Your task to perform on an android device: star an email in the gmail app Image 0: 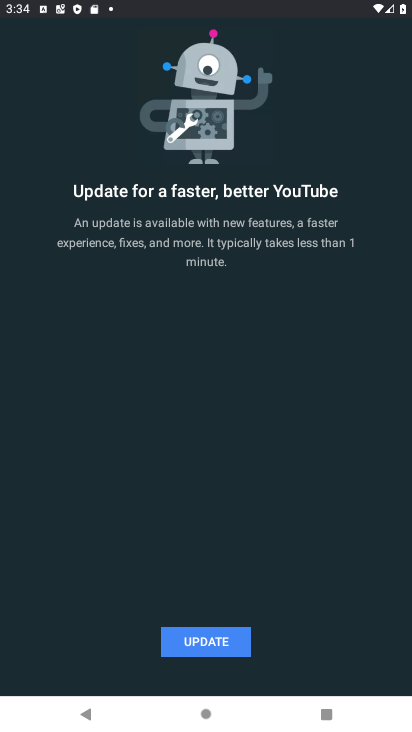
Step 0: press home button
Your task to perform on an android device: star an email in the gmail app Image 1: 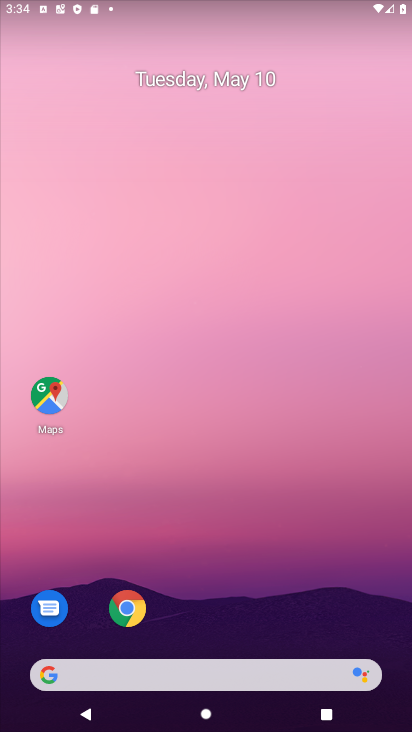
Step 1: drag from (382, 627) to (246, 150)
Your task to perform on an android device: star an email in the gmail app Image 2: 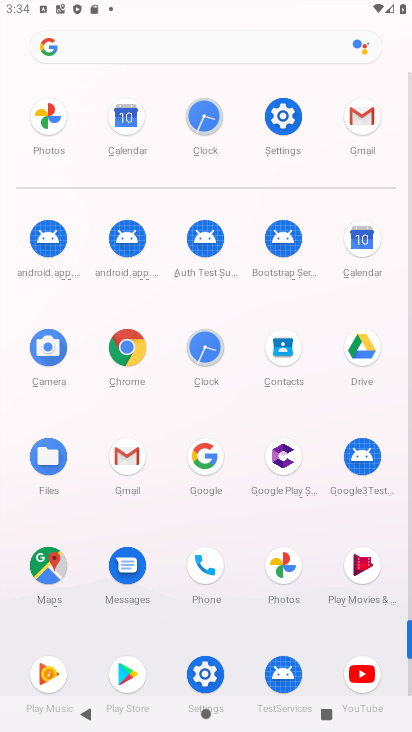
Step 2: click (410, 687)
Your task to perform on an android device: star an email in the gmail app Image 3: 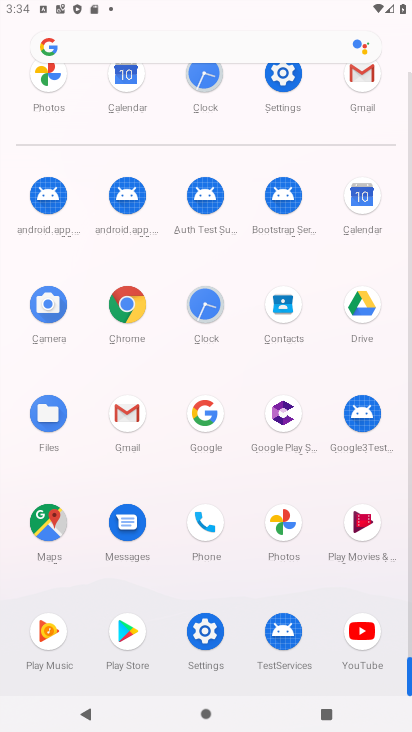
Step 3: click (123, 411)
Your task to perform on an android device: star an email in the gmail app Image 4: 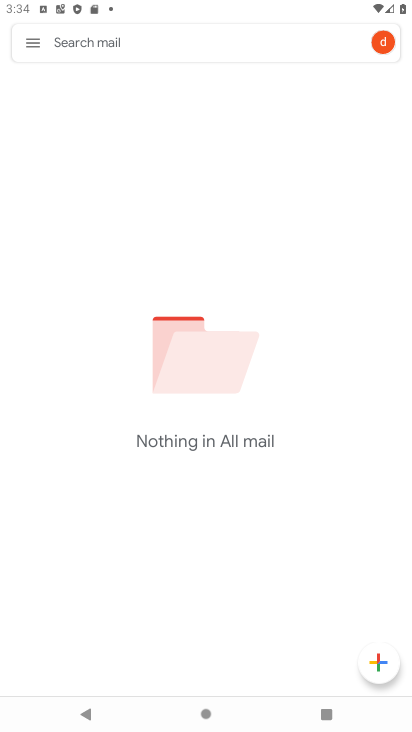
Step 4: click (34, 38)
Your task to perform on an android device: star an email in the gmail app Image 5: 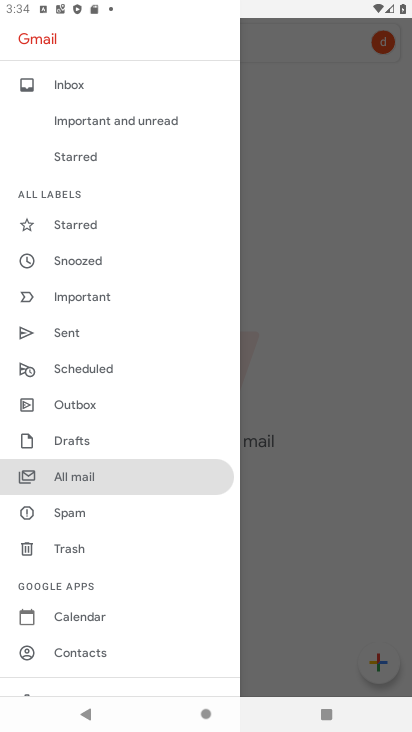
Step 5: click (96, 478)
Your task to perform on an android device: star an email in the gmail app Image 6: 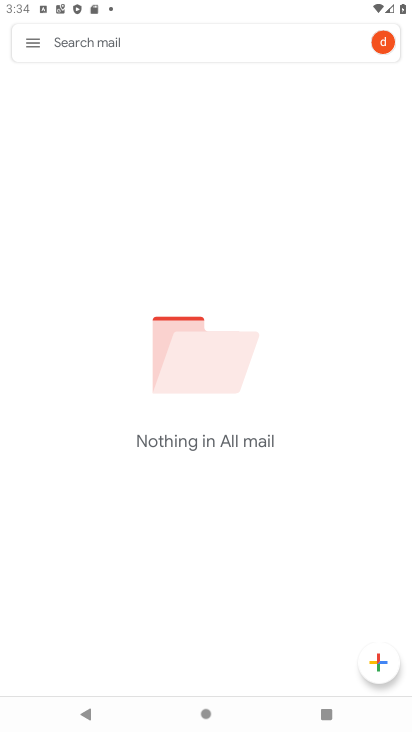
Step 6: task complete